Your task to perform on an android device: turn pop-ups off in chrome Image 0: 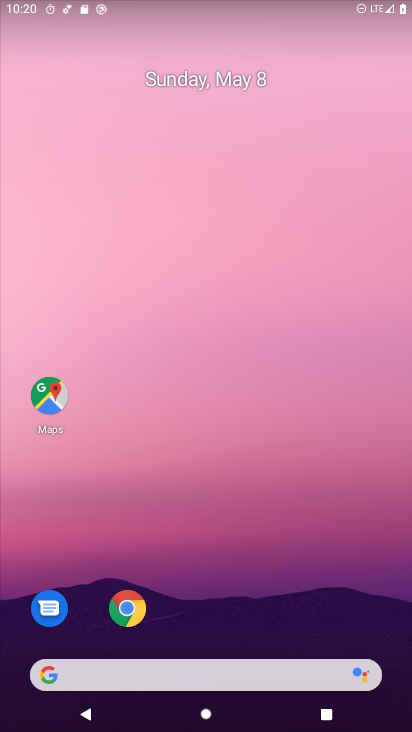
Step 0: click (124, 609)
Your task to perform on an android device: turn pop-ups off in chrome Image 1: 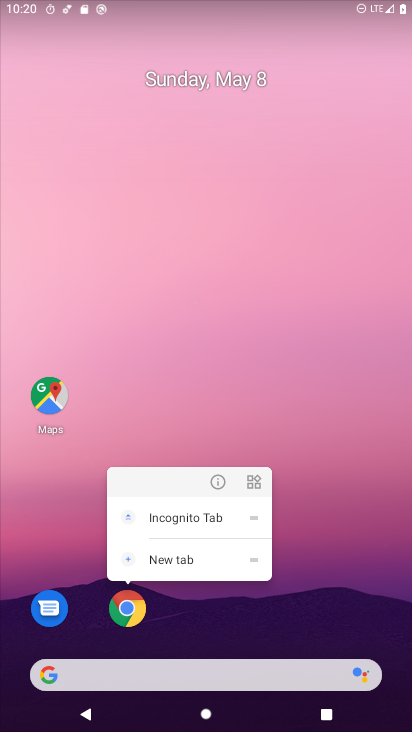
Step 1: click (213, 487)
Your task to perform on an android device: turn pop-ups off in chrome Image 2: 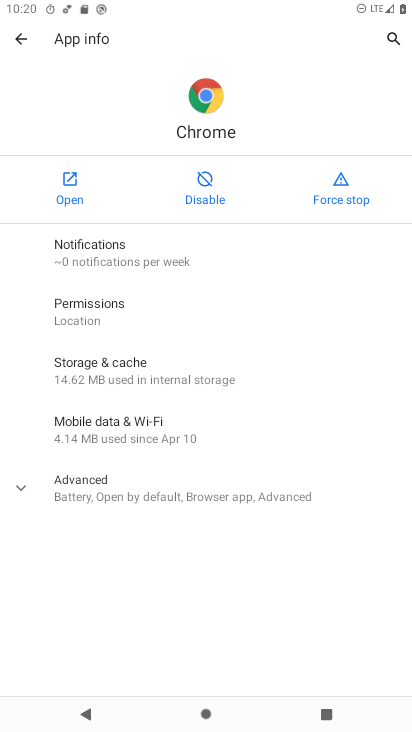
Step 2: click (65, 199)
Your task to perform on an android device: turn pop-ups off in chrome Image 3: 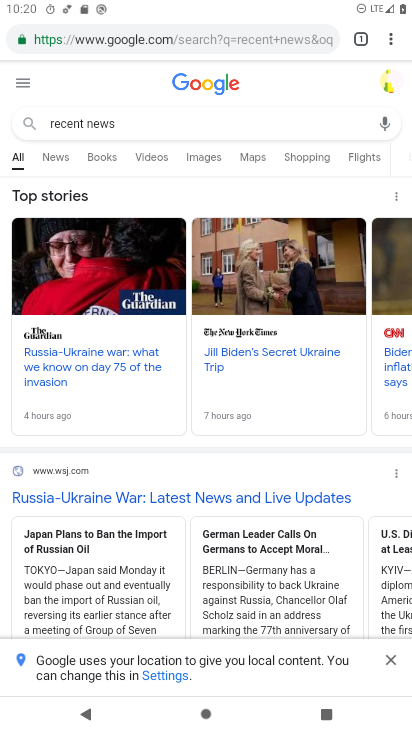
Step 3: click (391, 37)
Your task to perform on an android device: turn pop-ups off in chrome Image 4: 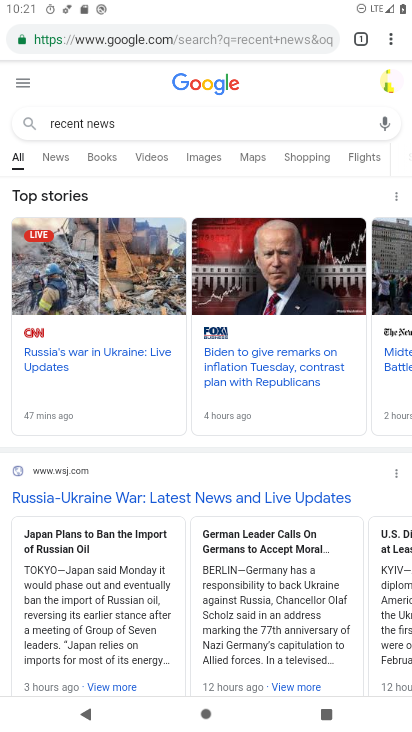
Step 4: click (391, 37)
Your task to perform on an android device: turn pop-ups off in chrome Image 5: 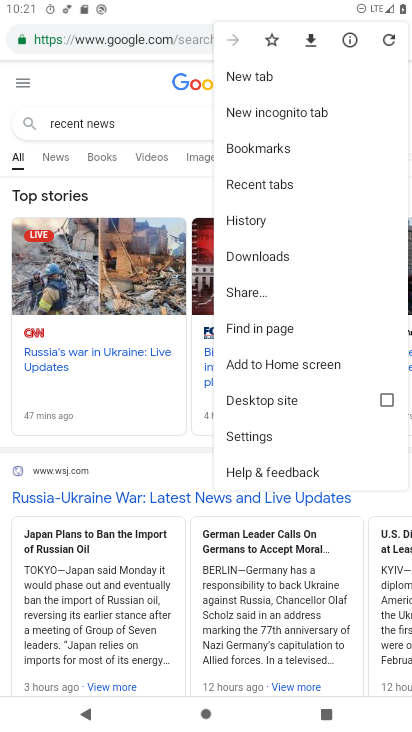
Step 5: click (283, 442)
Your task to perform on an android device: turn pop-ups off in chrome Image 6: 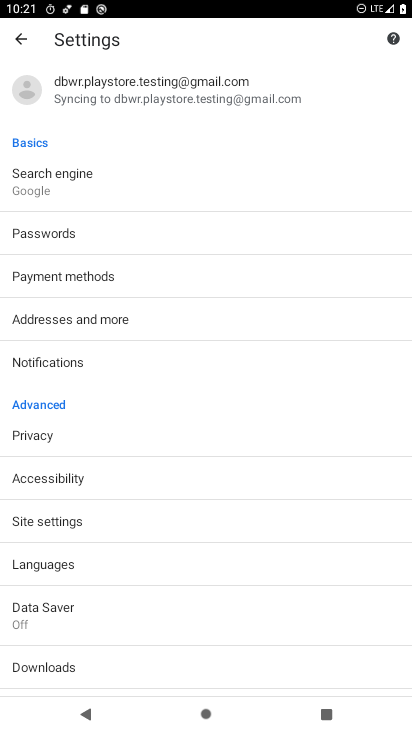
Step 6: click (70, 524)
Your task to perform on an android device: turn pop-ups off in chrome Image 7: 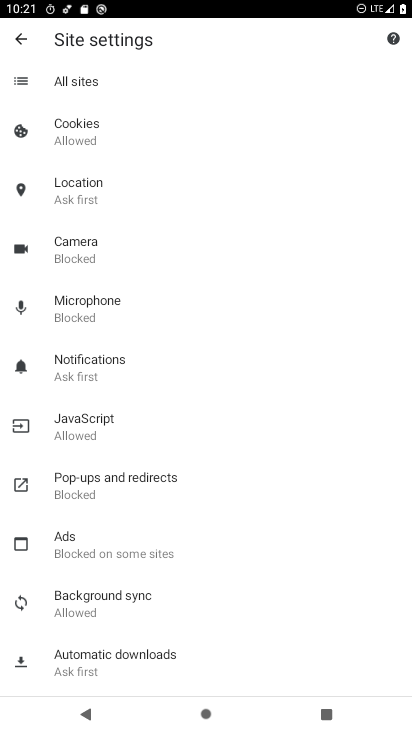
Step 7: click (129, 482)
Your task to perform on an android device: turn pop-ups off in chrome Image 8: 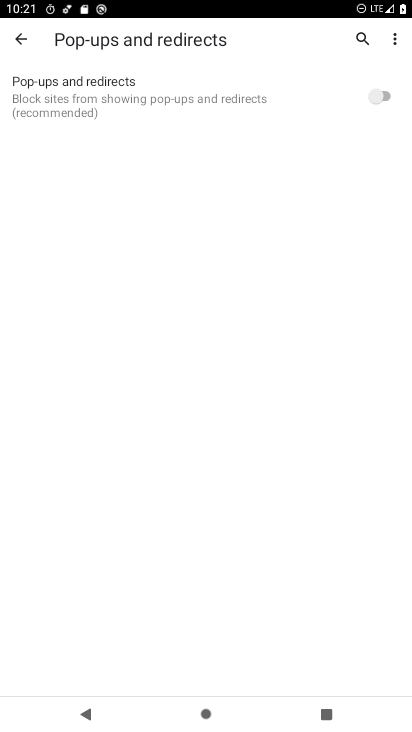
Step 8: task complete